Your task to perform on an android device: turn on javascript in the chrome app Image 0: 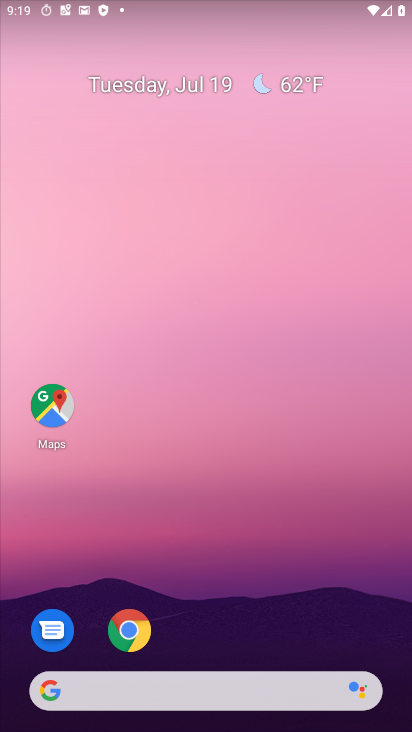
Step 0: click (126, 628)
Your task to perform on an android device: turn on javascript in the chrome app Image 1: 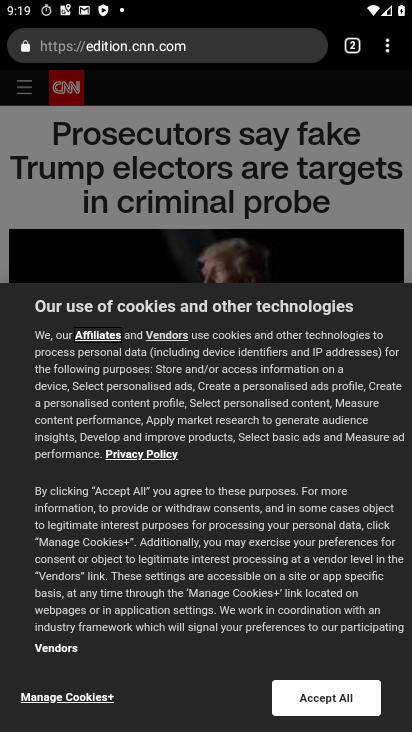
Step 1: click (391, 44)
Your task to perform on an android device: turn on javascript in the chrome app Image 2: 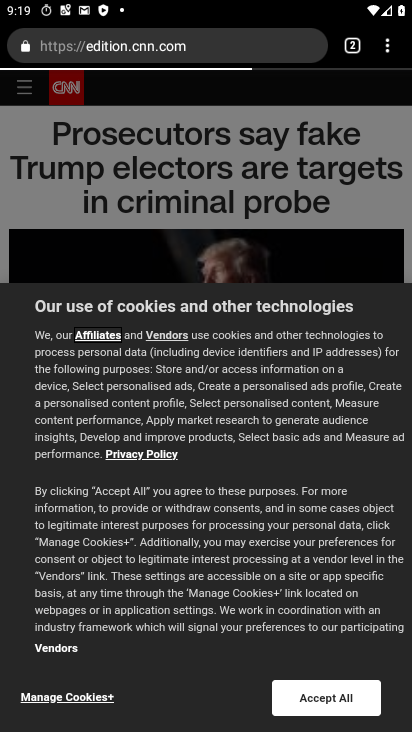
Step 2: click (388, 45)
Your task to perform on an android device: turn on javascript in the chrome app Image 3: 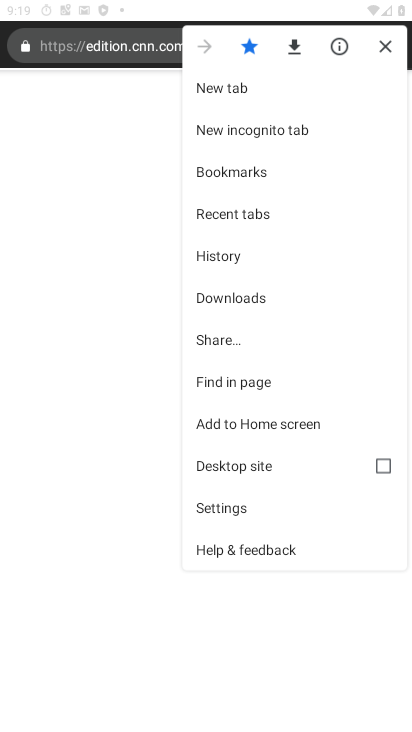
Step 3: click (220, 504)
Your task to perform on an android device: turn on javascript in the chrome app Image 4: 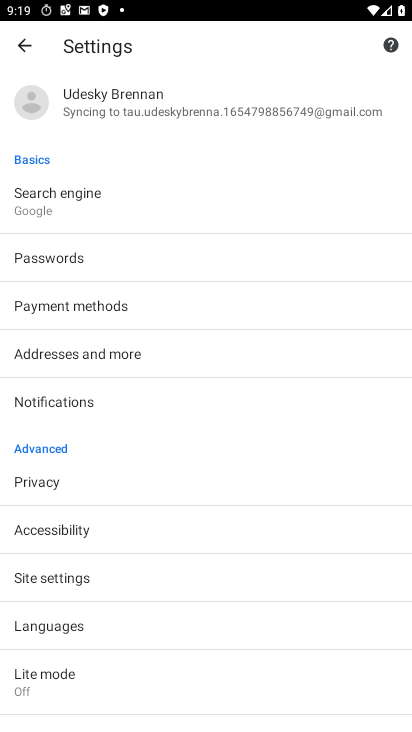
Step 4: click (48, 572)
Your task to perform on an android device: turn on javascript in the chrome app Image 5: 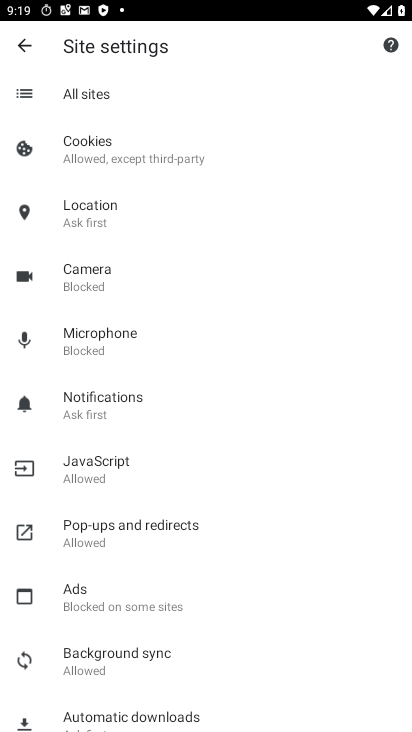
Step 5: click (90, 469)
Your task to perform on an android device: turn on javascript in the chrome app Image 6: 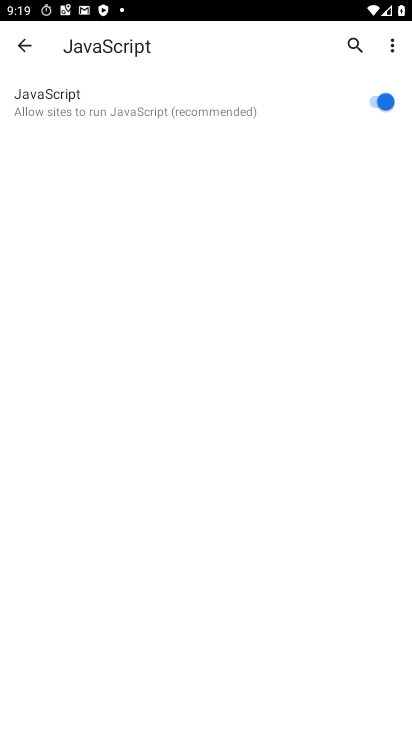
Step 6: task complete